Your task to perform on an android device: open app "Yahoo Mail" (install if not already installed) Image 0: 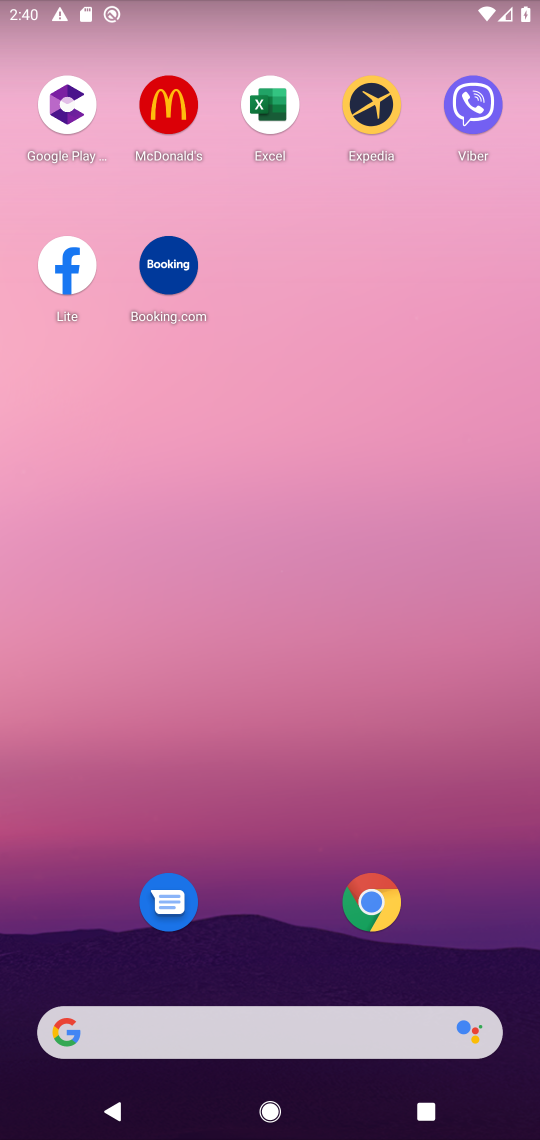
Step 0: click (369, 925)
Your task to perform on an android device: open app "Yahoo Mail" (install if not already installed) Image 1: 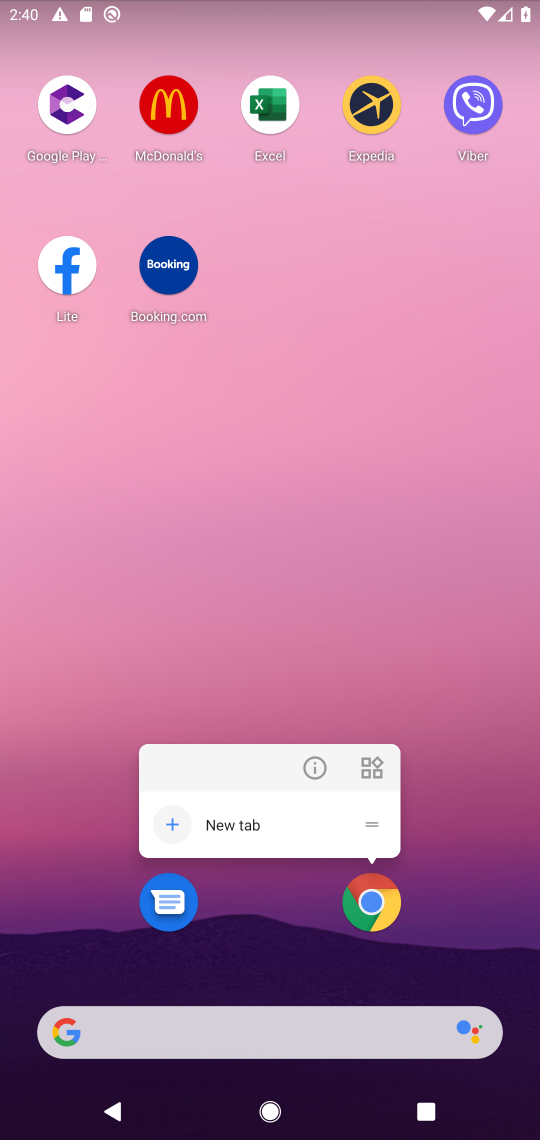
Step 1: click (369, 910)
Your task to perform on an android device: open app "Yahoo Mail" (install if not already installed) Image 2: 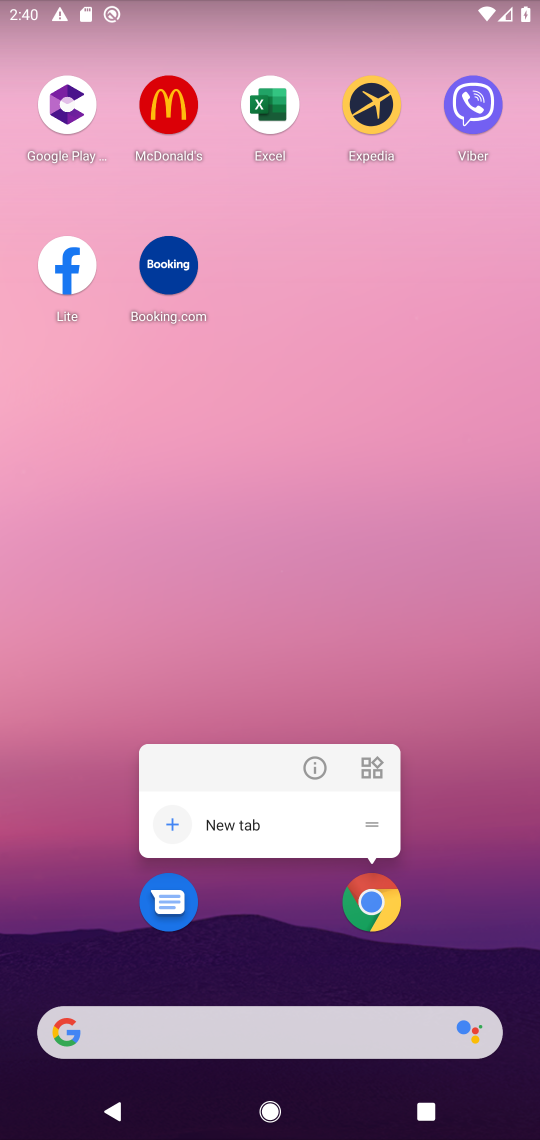
Step 2: drag from (170, 1005) to (186, 209)
Your task to perform on an android device: open app "Yahoo Mail" (install if not already installed) Image 3: 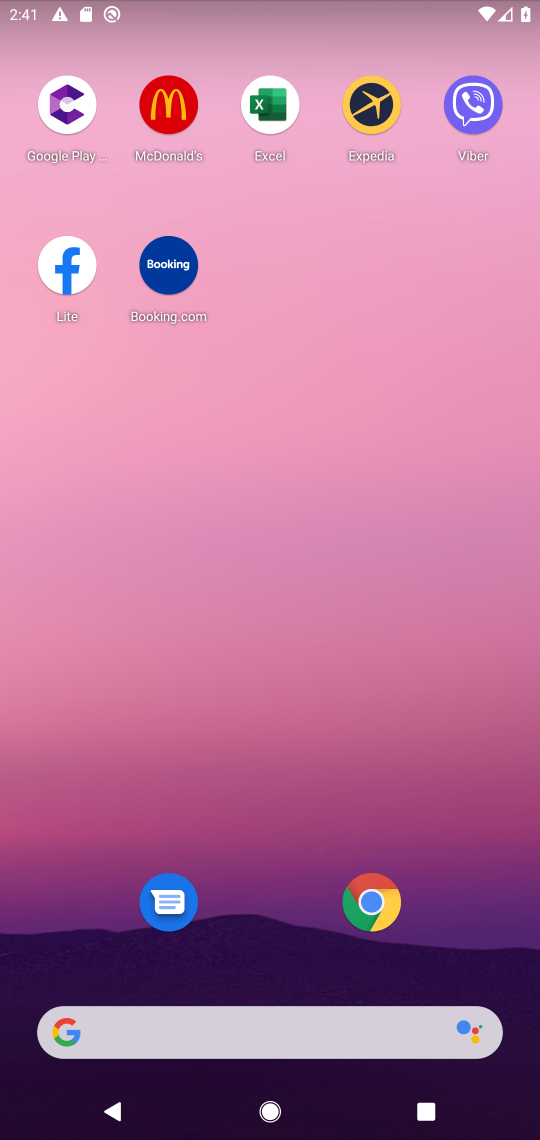
Step 3: drag from (300, 1008) to (275, 291)
Your task to perform on an android device: open app "Yahoo Mail" (install if not already installed) Image 4: 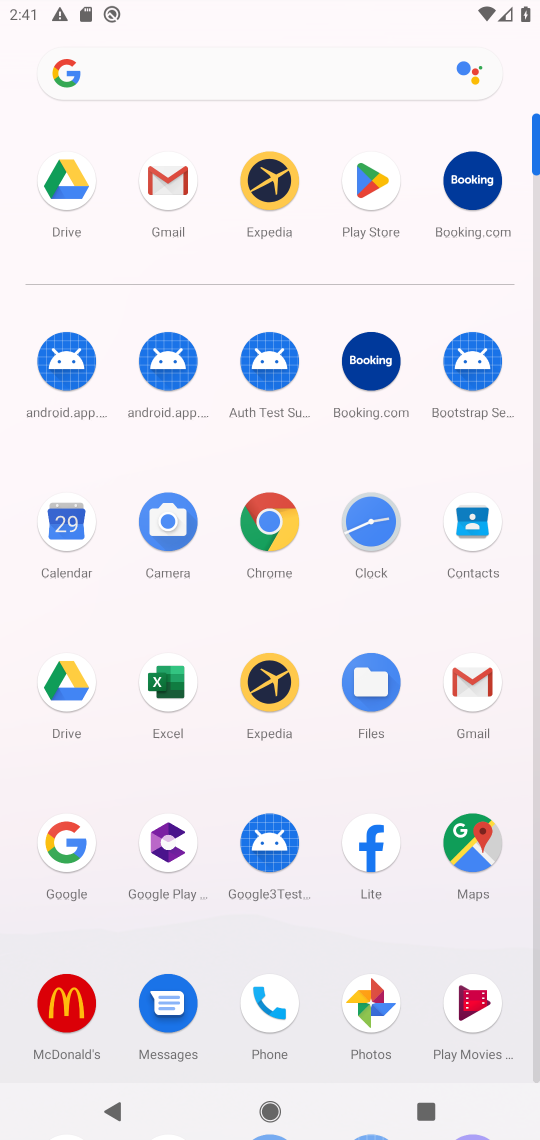
Step 4: click (373, 183)
Your task to perform on an android device: open app "Yahoo Mail" (install if not already installed) Image 5: 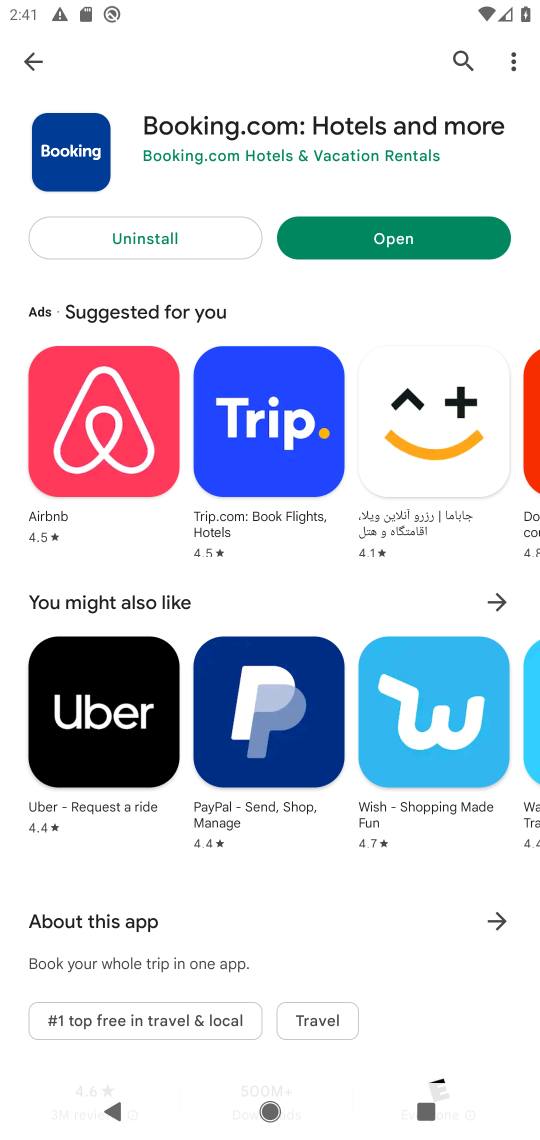
Step 5: click (24, 60)
Your task to perform on an android device: open app "Yahoo Mail" (install if not already installed) Image 6: 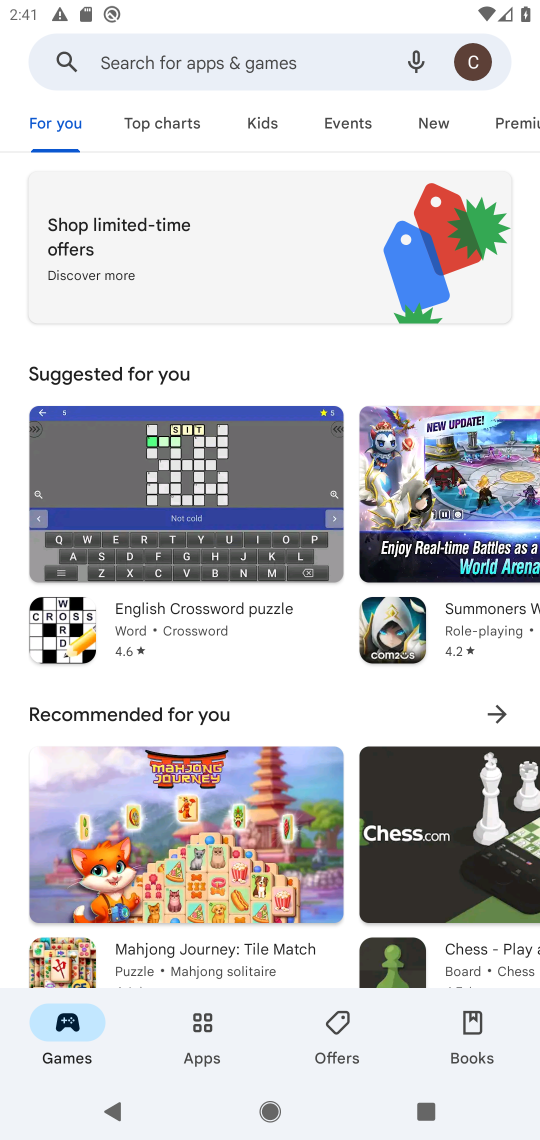
Step 6: click (247, 71)
Your task to perform on an android device: open app "Yahoo Mail" (install if not already installed) Image 7: 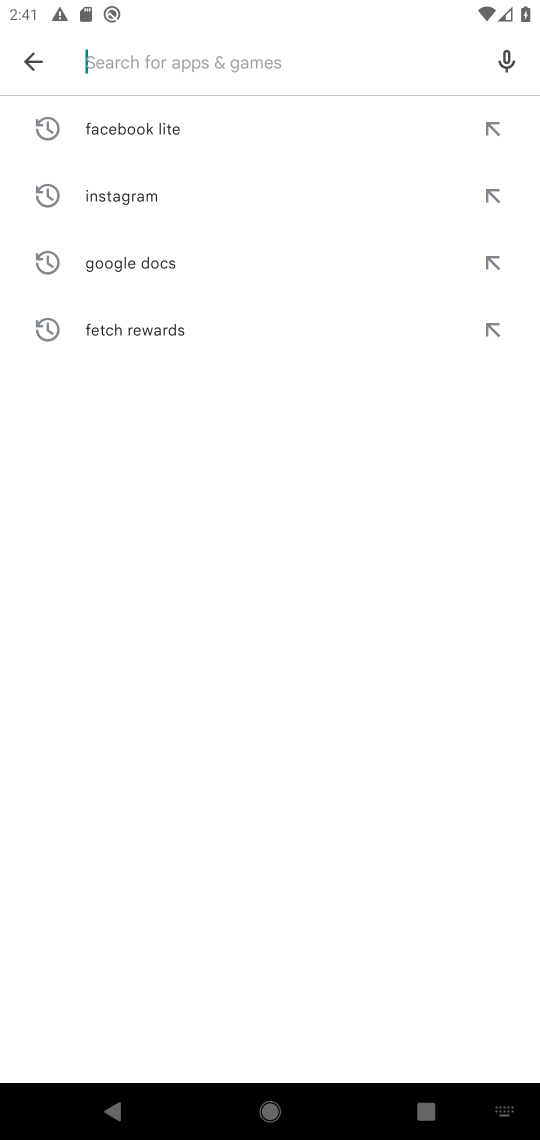
Step 7: type "Yahoo Mail"
Your task to perform on an android device: open app "Yahoo Mail" (install if not already installed) Image 8: 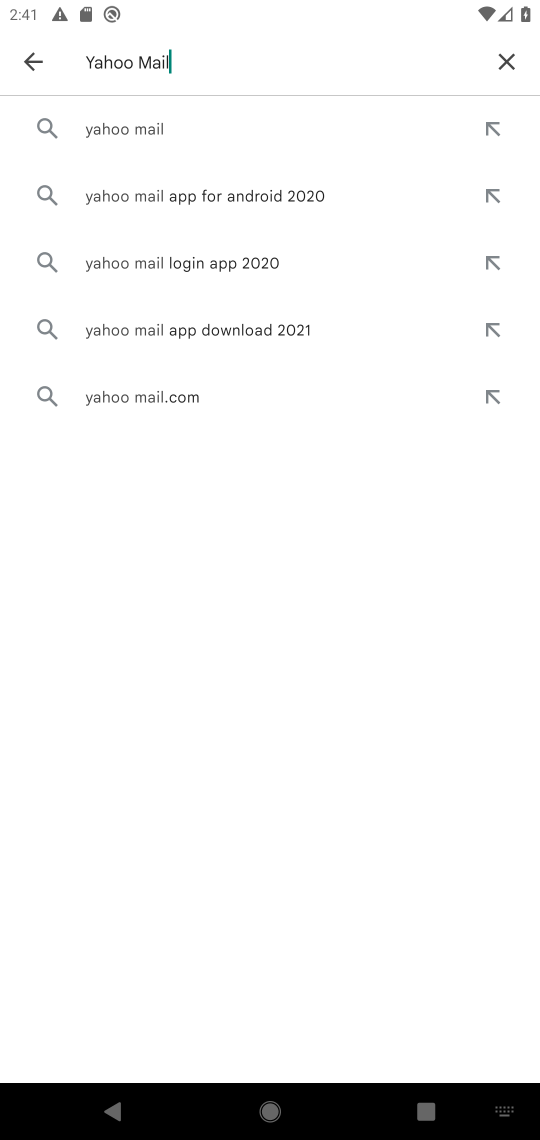
Step 8: click (126, 131)
Your task to perform on an android device: open app "Yahoo Mail" (install if not already installed) Image 9: 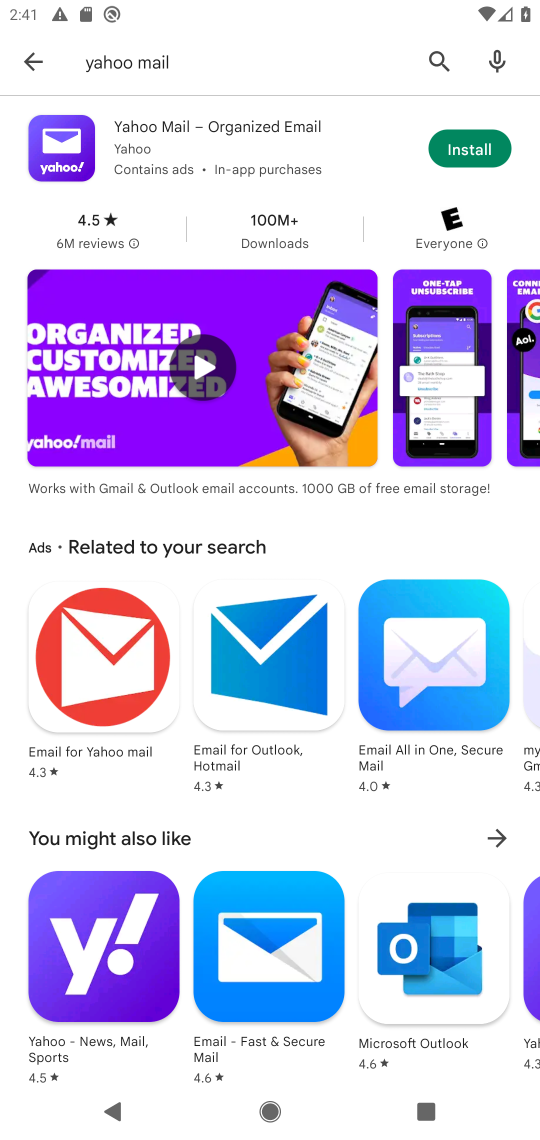
Step 9: click (485, 140)
Your task to perform on an android device: open app "Yahoo Mail" (install if not already installed) Image 10: 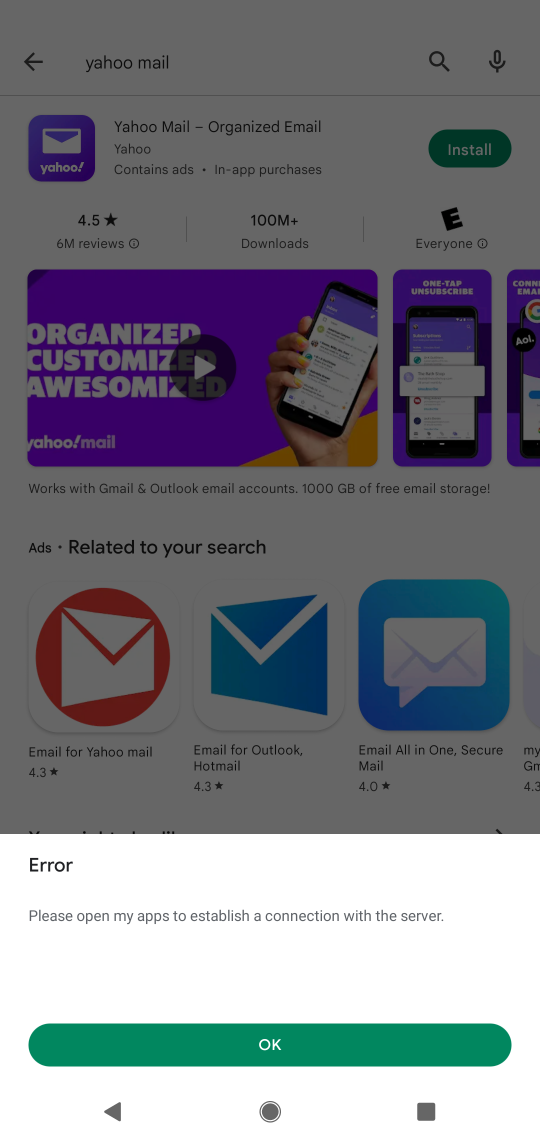
Step 10: task complete